Your task to perform on an android device: Open internet settings Image 0: 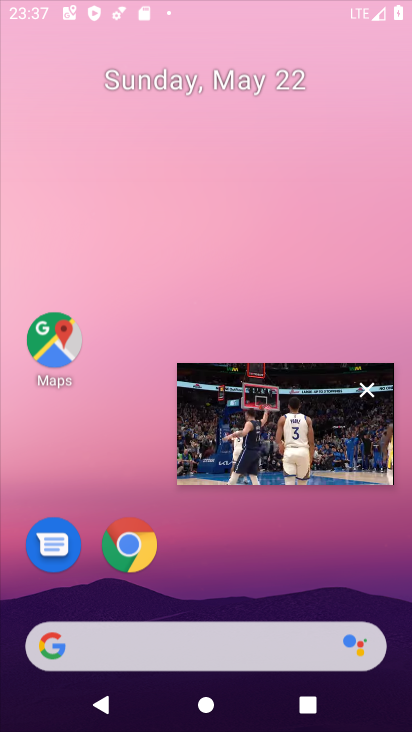
Step 0: click (328, 392)
Your task to perform on an android device: Open internet settings Image 1: 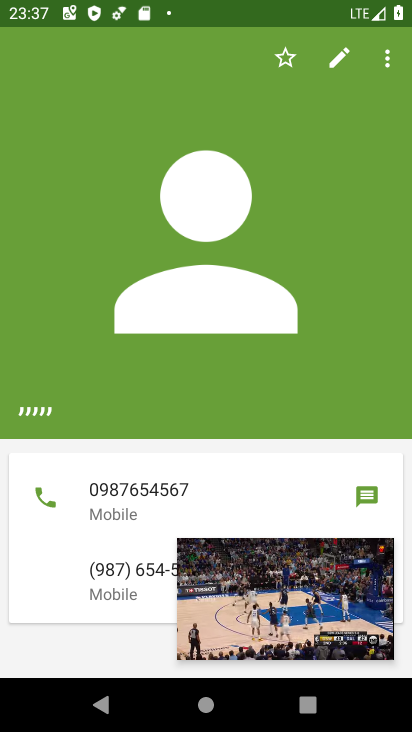
Step 1: drag from (370, 562) to (267, 730)
Your task to perform on an android device: Open internet settings Image 2: 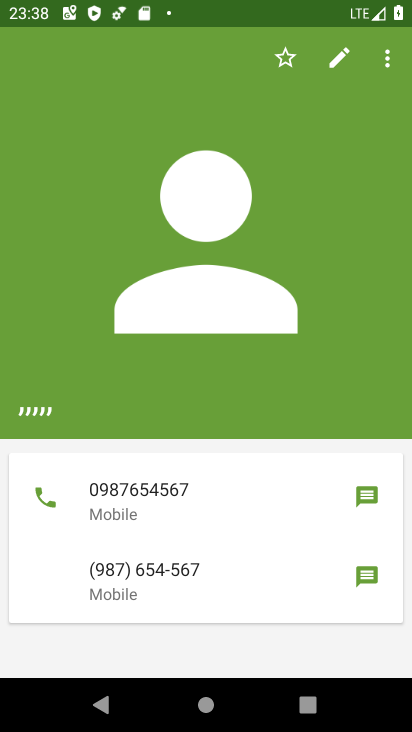
Step 2: drag from (222, 581) to (284, 172)
Your task to perform on an android device: Open internet settings Image 3: 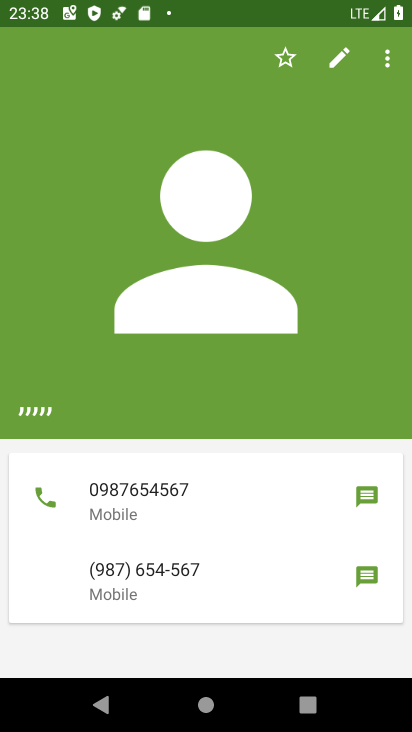
Step 3: drag from (257, 627) to (360, 244)
Your task to perform on an android device: Open internet settings Image 4: 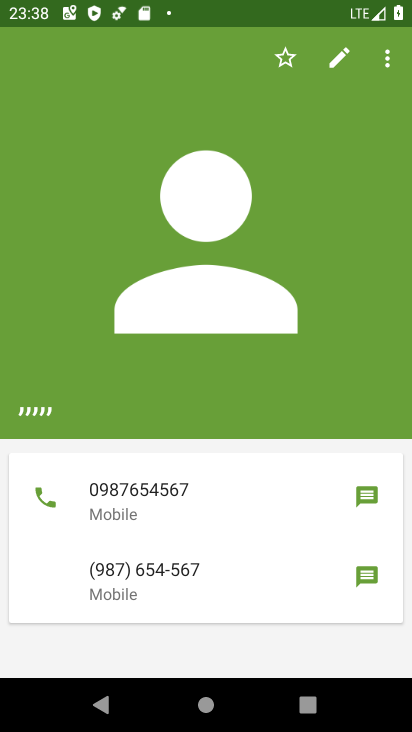
Step 4: press home button
Your task to perform on an android device: Open internet settings Image 5: 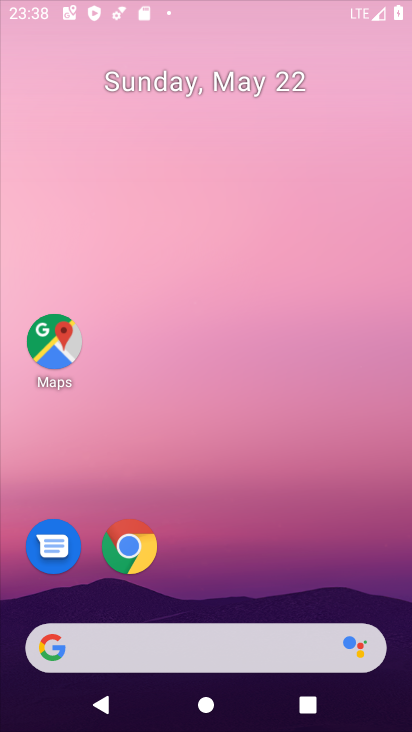
Step 5: drag from (232, 579) to (251, 195)
Your task to perform on an android device: Open internet settings Image 6: 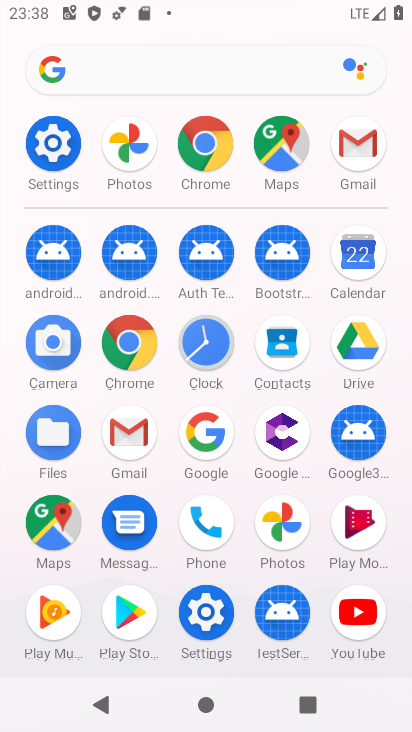
Step 6: click (200, 609)
Your task to perform on an android device: Open internet settings Image 7: 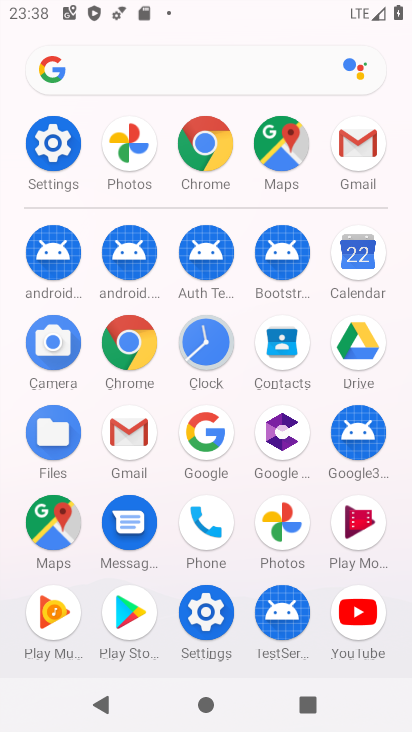
Step 7: click (200, 609)
Your task to perform on an android device: Open internet settings Image 8: 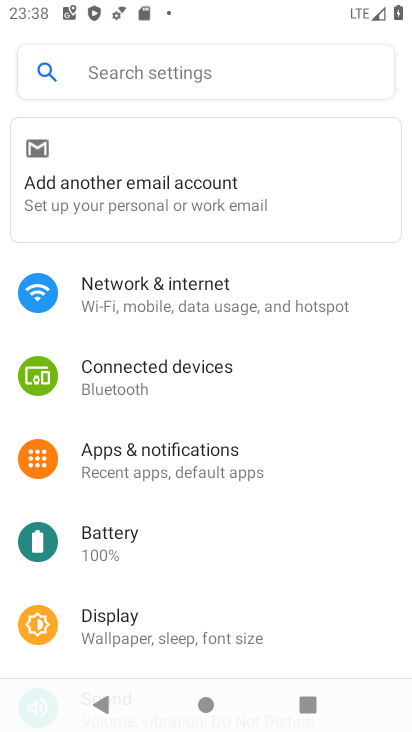
Step 8: drag from (231, 619) to (280, 293)
Your task to perform on an android device: Open internet settings Image 9: 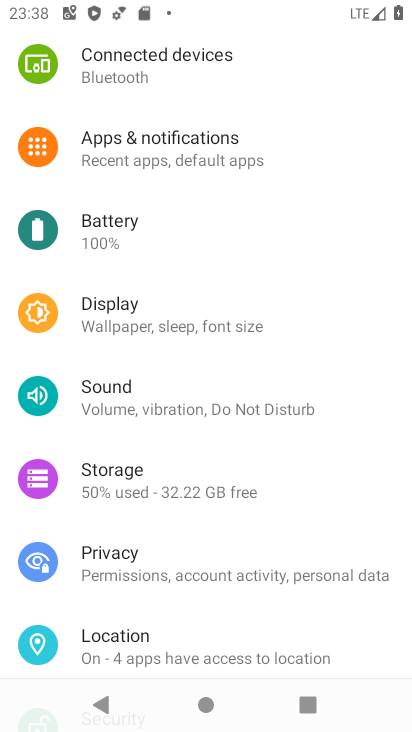
Step 9: drag from (253, 241) to (251, 651)
Your task to perform on an android device: Open internet settings Image 10: 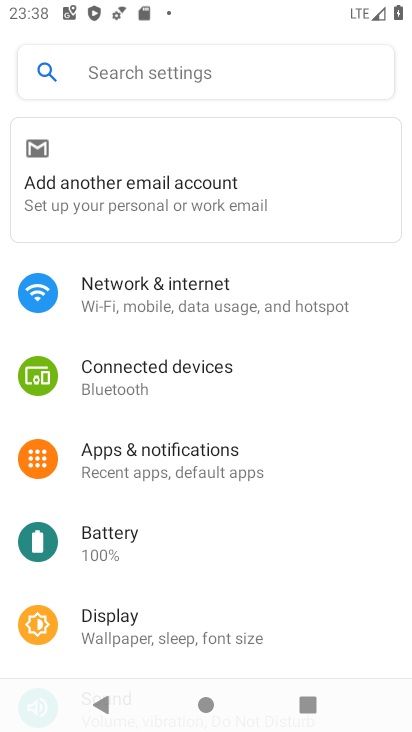
Step 10: click (150, 297)
Your task to perform on an android device: Open internet settings Image 11: 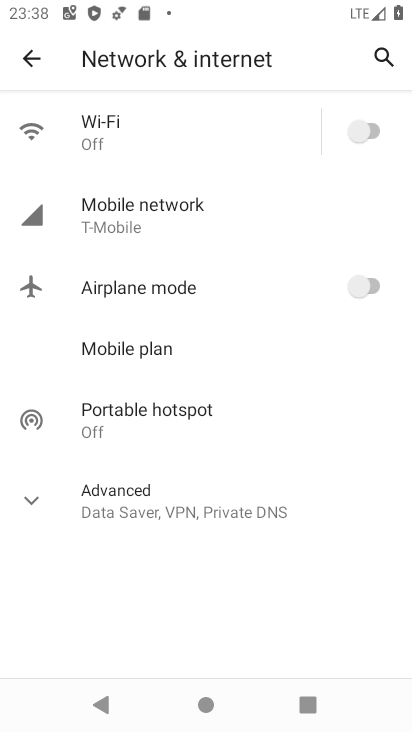
Step 11: task complete